Your task to perform on an android device: refresh tabs in the chrome app Image 0: 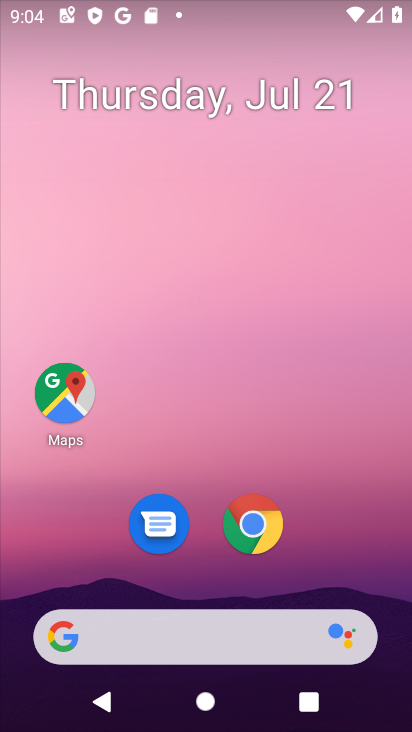
Step 0: press home button
Your task to perform on an android device: refresh tabs in the chrome app Image 1: 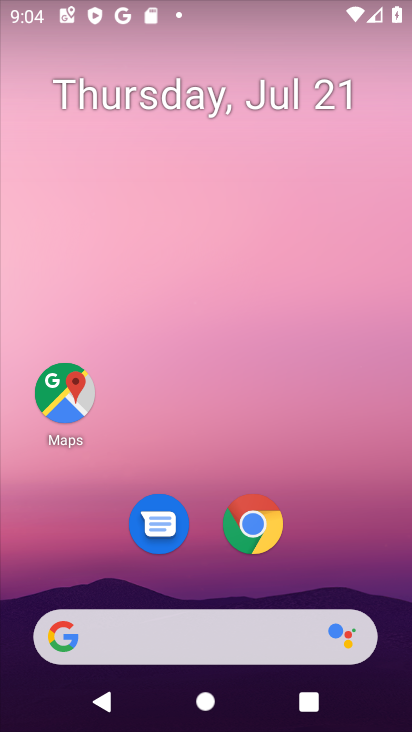
Step 1: click (235, 534)
Your task to perform on an android device: refresh tabs in the chrome app Image 2: 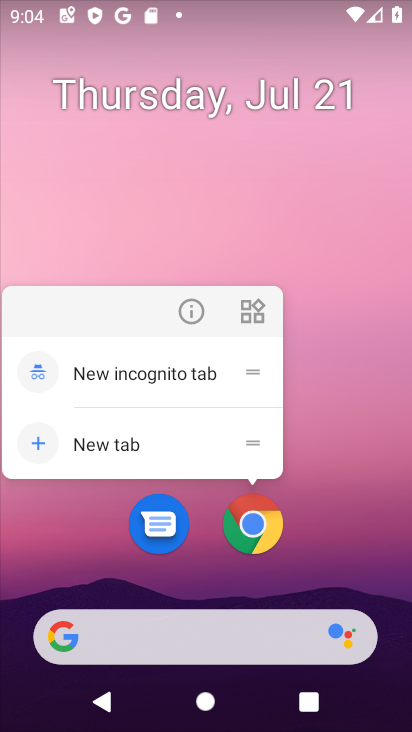
Step 2: click (252, 516)
Your task to perform on an android device: refresh tabs in the chrome app Image 3: 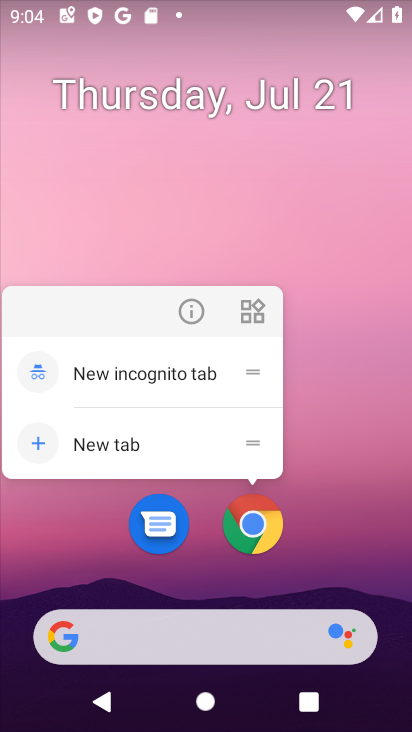
Step 3: click (250, 531)
Your task to perform on an android device: refresh tabs in the chrome app Image 4: 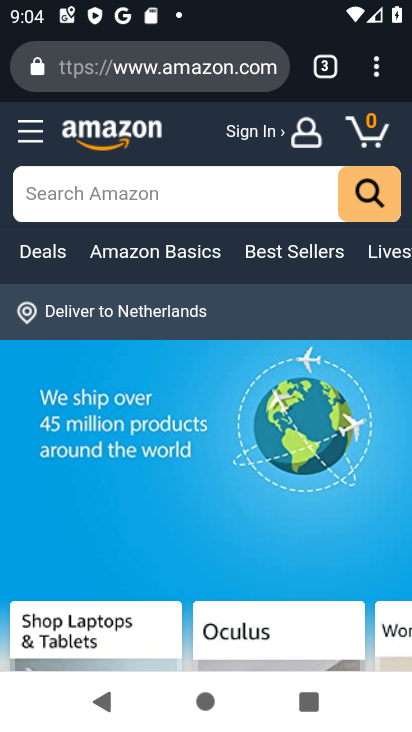
Step 4: click (378, 93)
Your task to perform on an android device: refresh tabs in the chrome app Image 5: 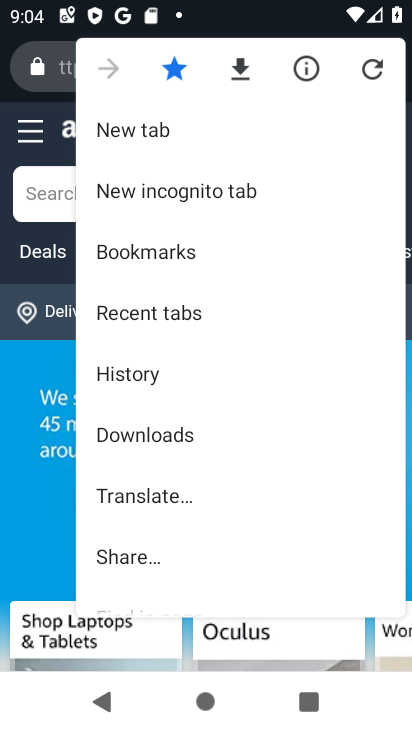
Step 5: click (370, 63)
Your task to perform on an android device: refresh tabs in the chrome app Image 6: 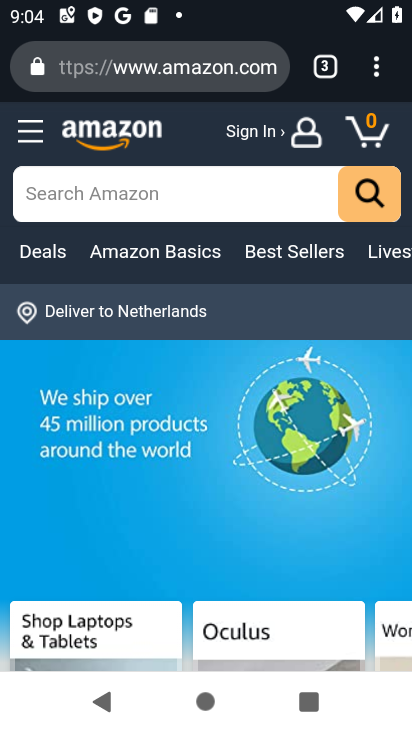
Step 6: task complete